Your task to perform on an android device: Do I have any events today? Image 0: 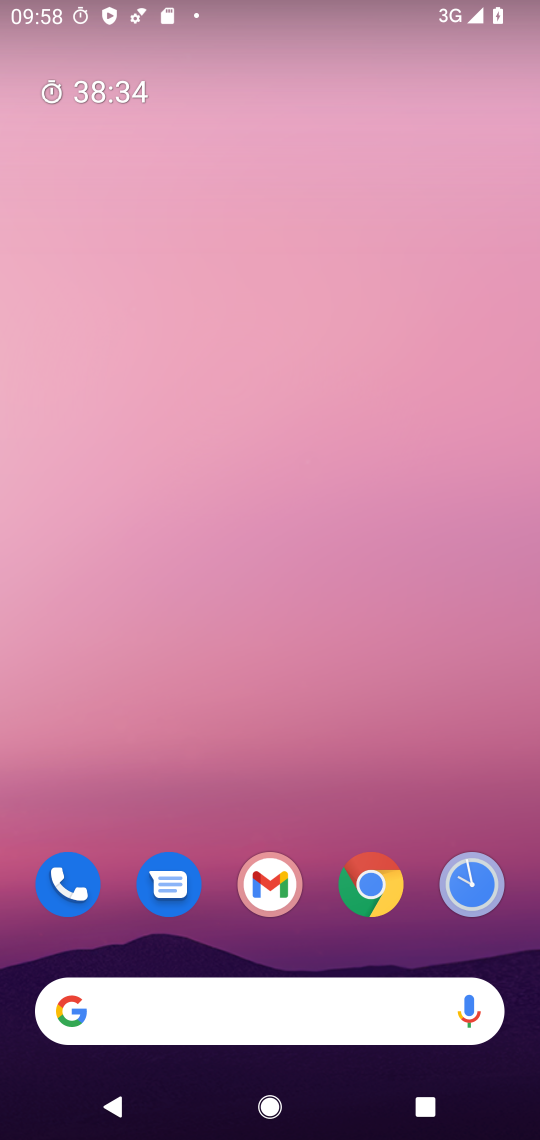
Step 0: drag from (284, 499) to (287, 27)
Your task to perform on an android device: Do I have any events today? Image 1: 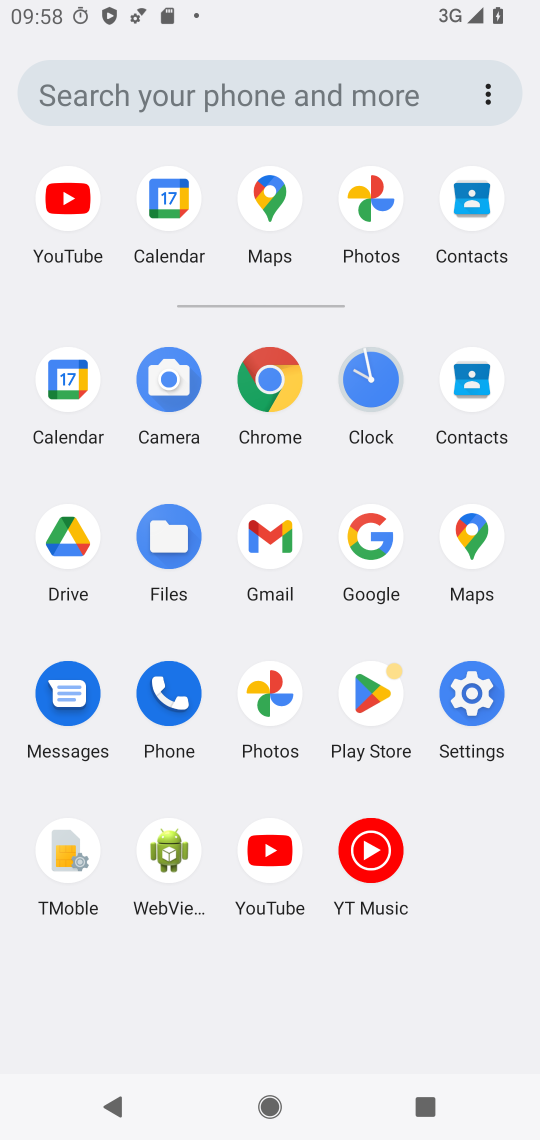
Step 1: click (78, 390)
Your task to perform on an android device: Do I have any events today? Image 2: 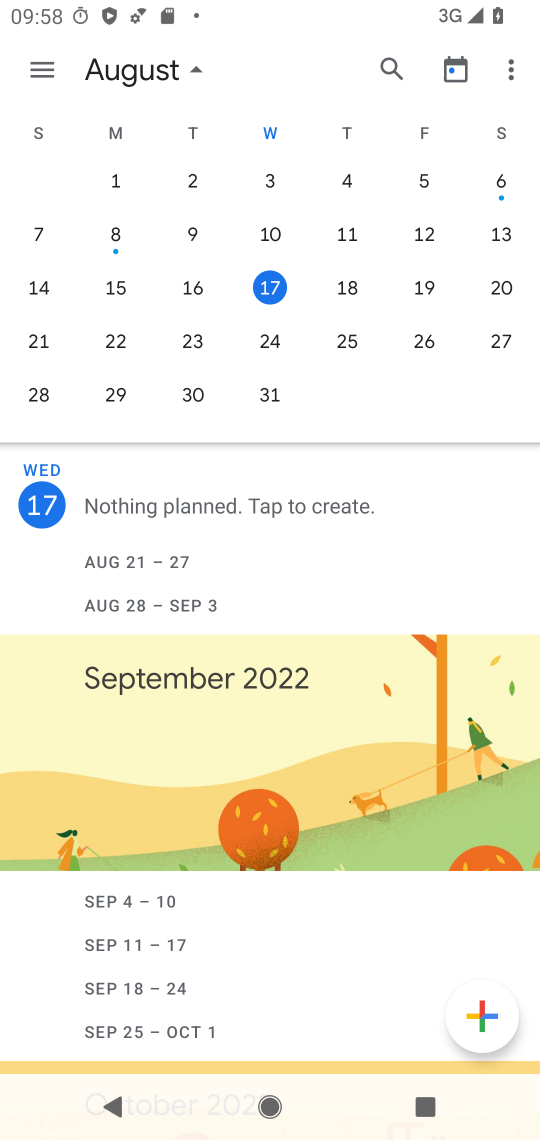
Step 2: task complete